Your task to perform on an android device: Open calendar and show me the second week of next month Image 0: 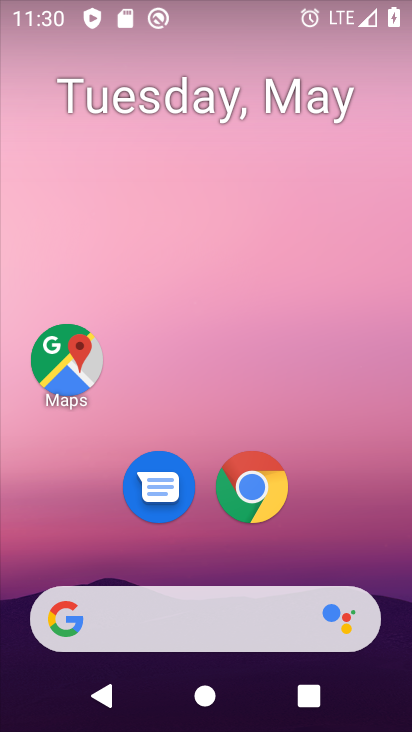
Step 0: drag from (201, 565) to (292, 121)
Your task to perform on an android device: Open calendar and show me the second week of next month Image 1: 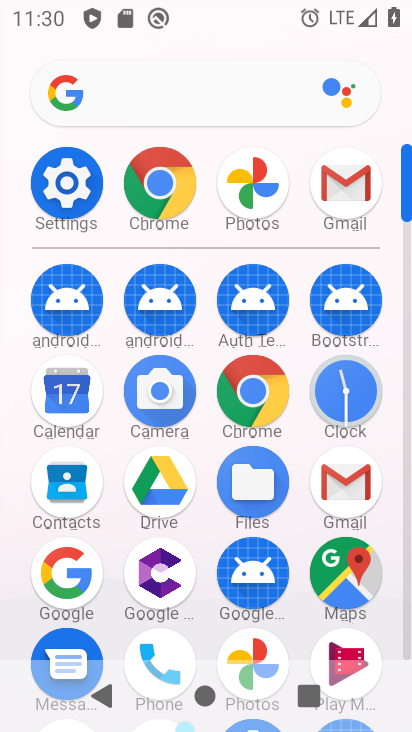
Step 1: click (341, 461)
Your task to perform on an android device: Open calendar and show me the second week of next month Image 2: 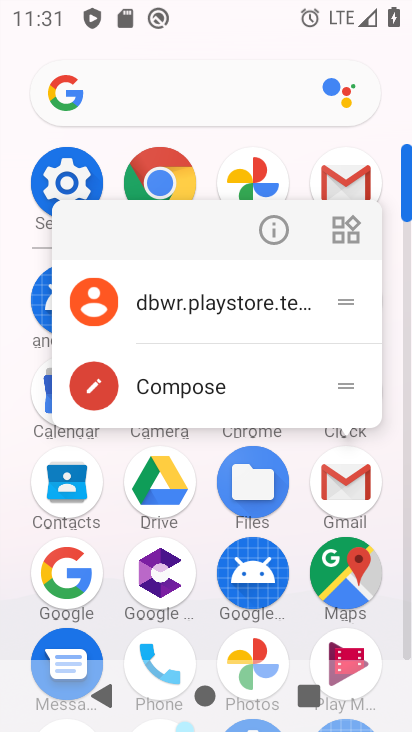
Step 2: click (271, 240)
Your task to perform on an android device: Open calendar and show me the second week of next month Image 3: 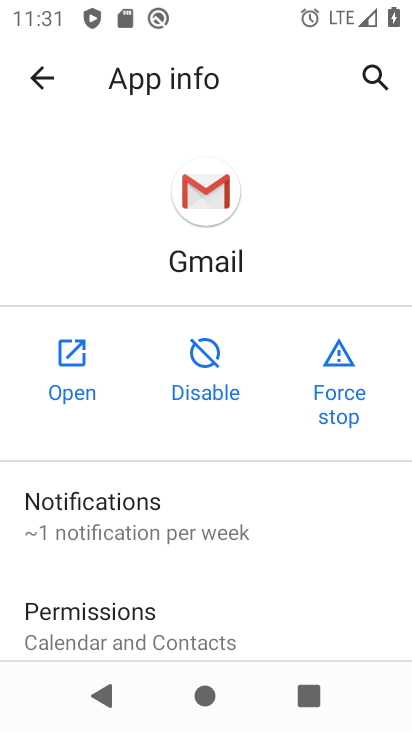
Step 3: click (81, 356)
Your task to perform on an android device: Open calendar and show me the second week of next month Image 4: 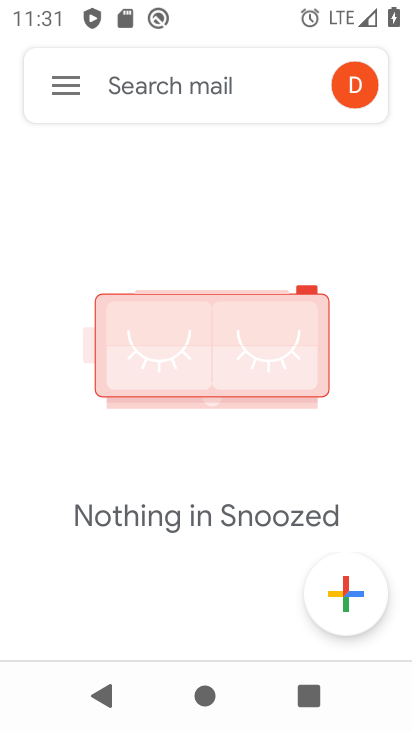
Step 4: click (63, 92)
Your task to perform on an android device: Open calendar and show me the second week of next month Image 5: 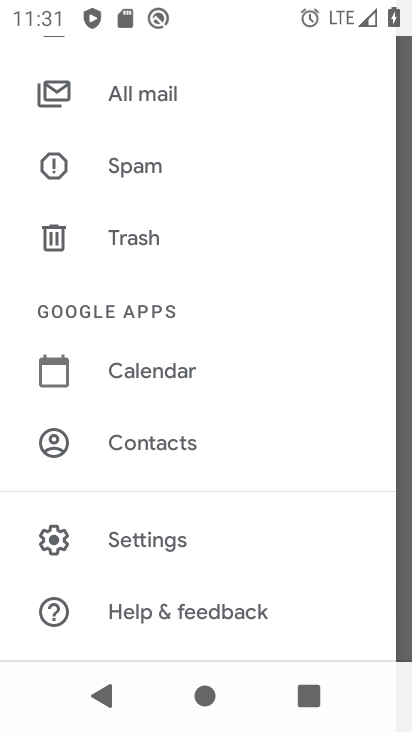
Step 5: drag from (182, 491) to (235, 136)
Your task to perform on an android device: Open calendar and show me the second week of next month Image 6: 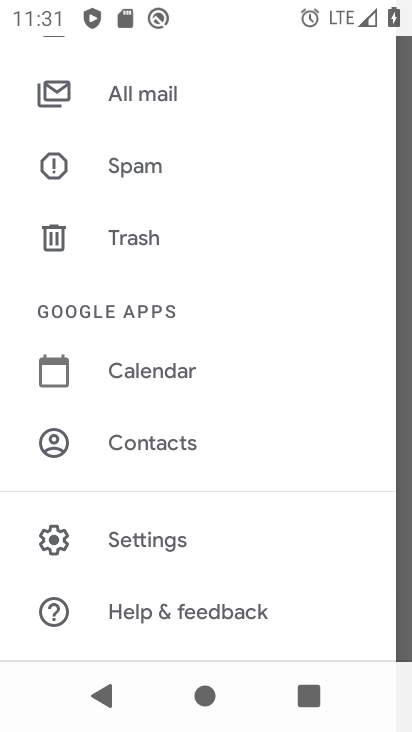
Step 6: click (156, 527)
Your task to perform on an android device: Open calendar and show me the second week of next month Image 7: 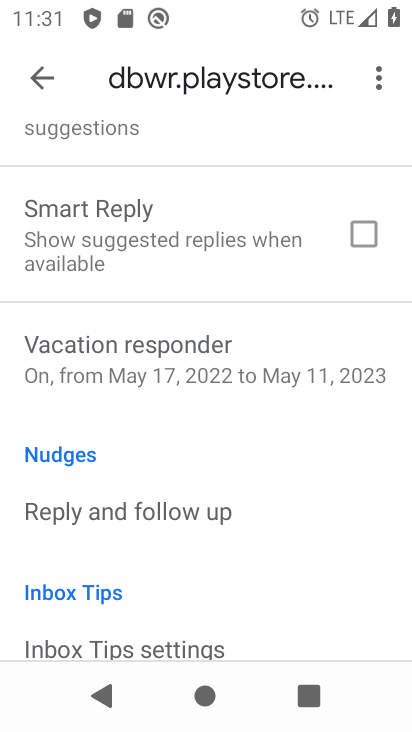
Step 7: drag from (236, 562) to (290, 270)
Your task to perform on an android device: Open calendar and show me the second week of next month Image 8: 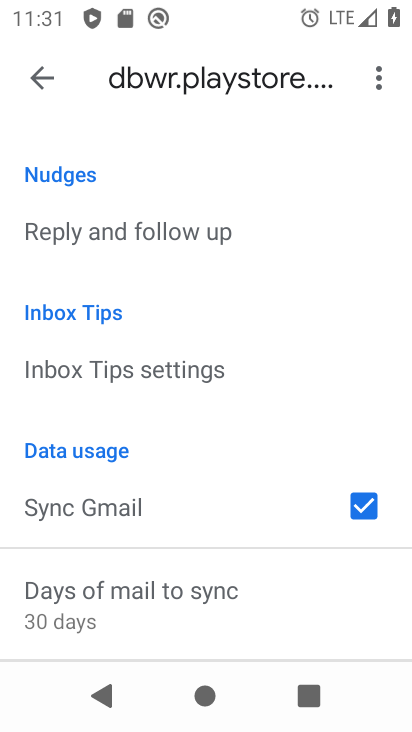
Step 8: drag from (151, 585) to (229, 311)
Your task to perform on an android device: Open calendar and show me the second week of next month Image 9: 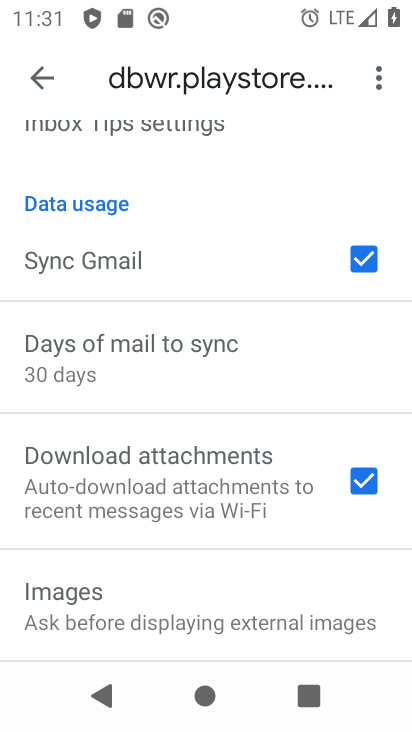
Step 9: drag from (203, 273) to (281, 662)
Your task to perform on an android device: Open calendar and show me the second week of next month Image 10: 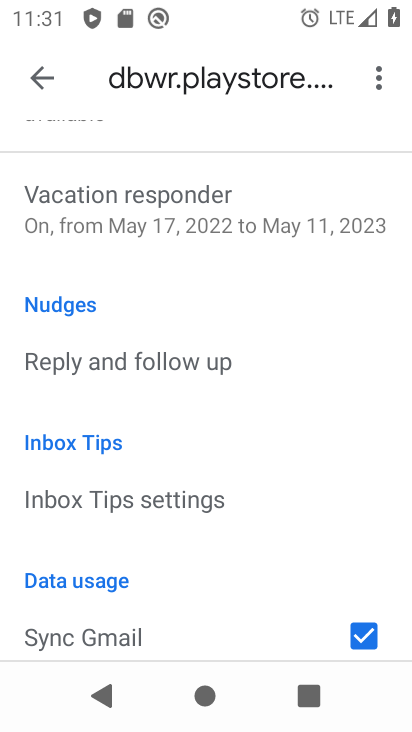
Step 10: drag from (183, 307) to (344, 610)
Your task to perform on an android device: Open calendar and show me the second week of next month Image 11: 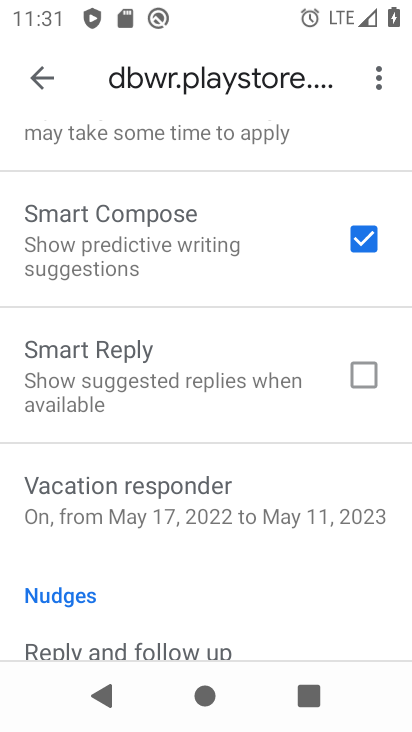
Step 11: press home button
Your task to perform on an android device: Open calendar and show me the second week of next month Image 12: 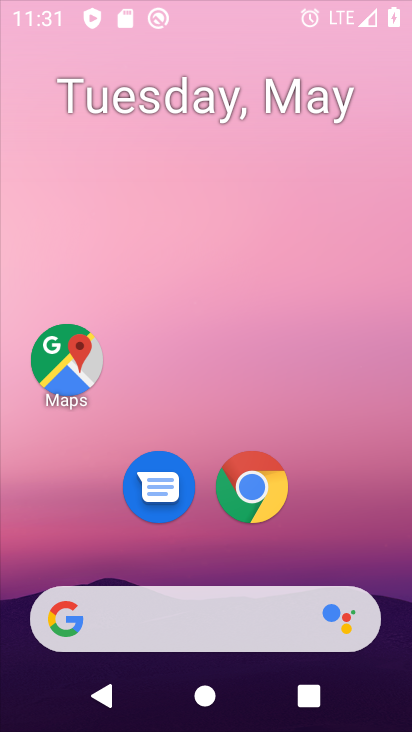
Step 12: drag from (203, 527) to (260, 114)
Your task to perform on an android device: Open calendar and show me the second week of next month Image 13: 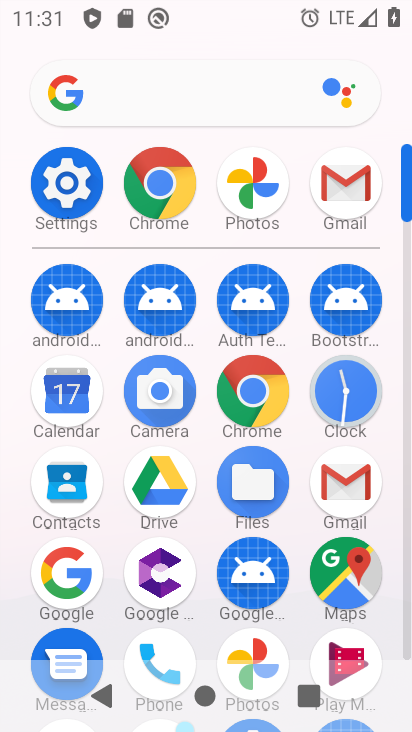
Step 13: click (50, 383)
Your task to perform on an android device: Open calendar and show me the second week of next month Image 14: 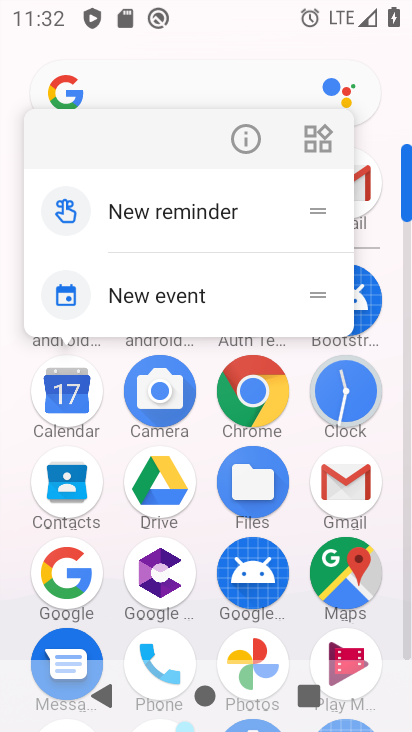
Step 14: click (254, 146)
Your task to perform on an android device: Open calendar and show me the second week of next month Image 15: 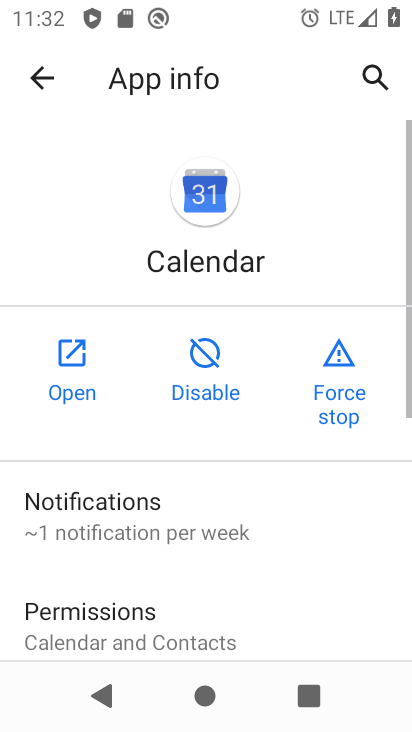
Step 15: click (78, 381)
Your task to perform on an android device: Open calendar and show me the second week of next month Image 16: 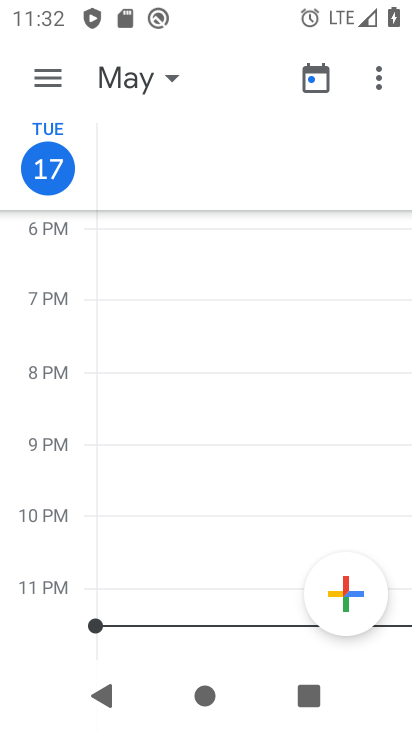
Step 16: click (164, 77)
Your task to perform on an android device: Open calendar and show me the second week of next month Image 17: 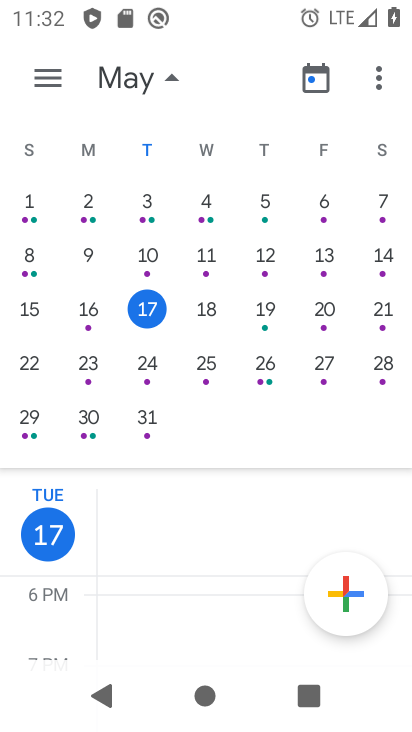
Step 17: drag from (363, 275) to (3, 238)
Your task to perform on an android device: Open calendar and show me the second week of next month Image 18: 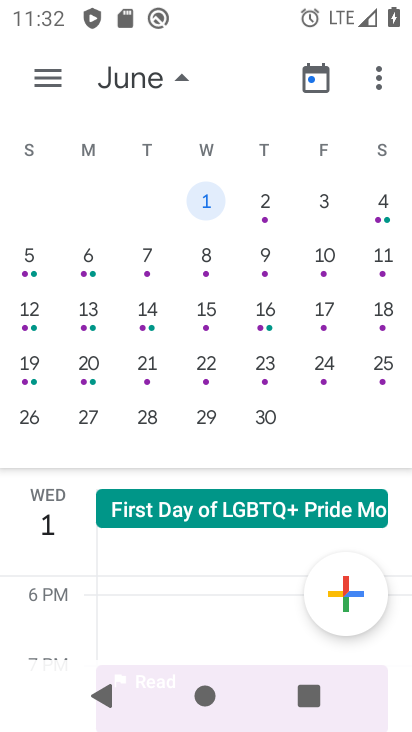
Step 18: click (264, 249)
Your task to perform on an android device: Open calendar and show me the second week of next month Image 19: 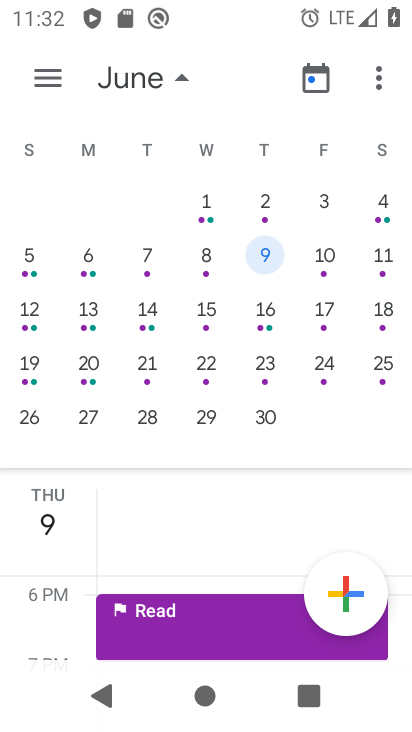
Step 19: task complete